Your task to perform on an android device: add a contact in the contacts app Image 0: 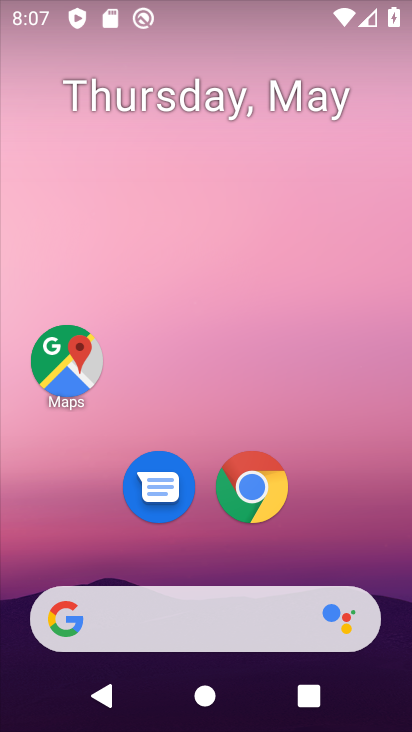
Step 0: drag from (185, 545) to (261, 58)
Your task to perform on an android device: add a contact in the contacts app Image 1: 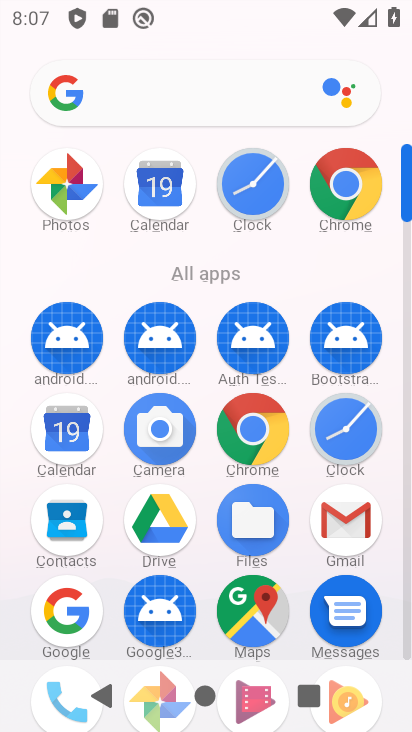
Step 1: drag from (214, 563) to (201, 195)
Your task to perform on an android device: add a contact in the contacts app Image 2: 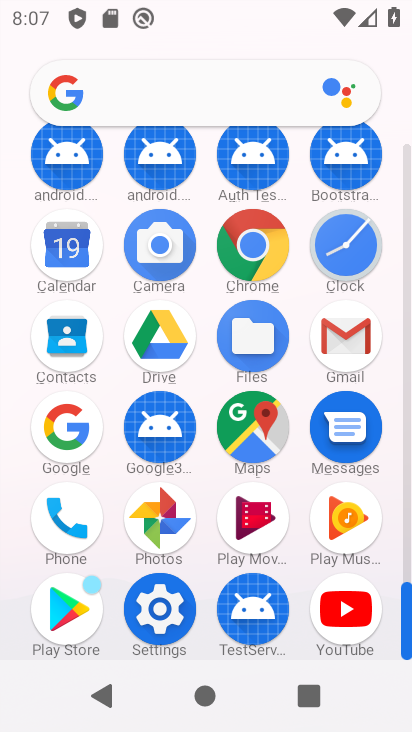
Step 2: click (77, 522)
Your task to perform on an android device: add a contact in the contacts app Image 3: 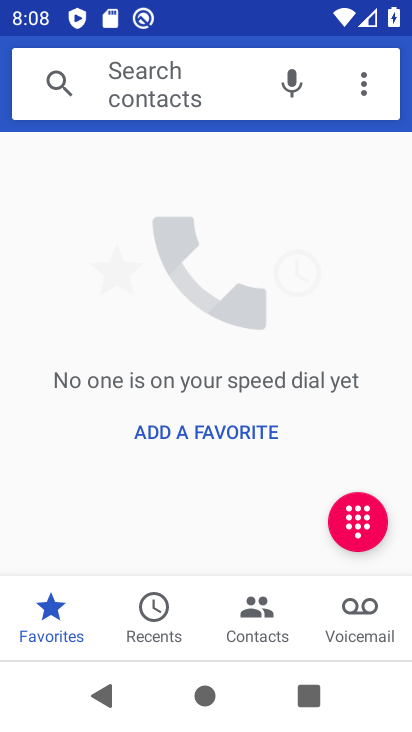
Step 3: click (257, 612)
Your task to perform on an android device: add a contact in the contacts app Image 4: 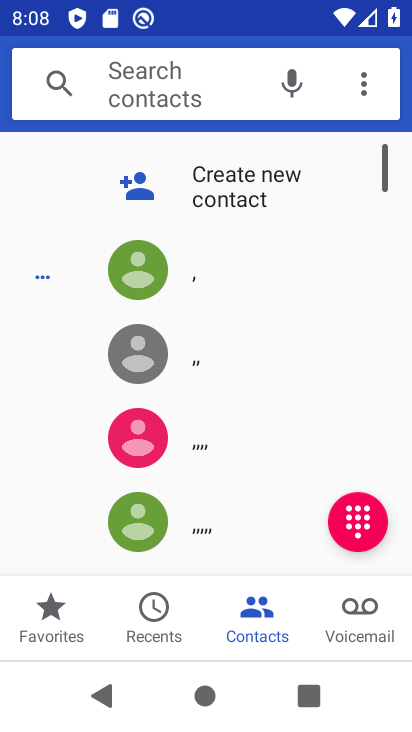
Step 4: click (297, 197)
Your task to perform on an android device: add a contact in the contacts app Image 5: 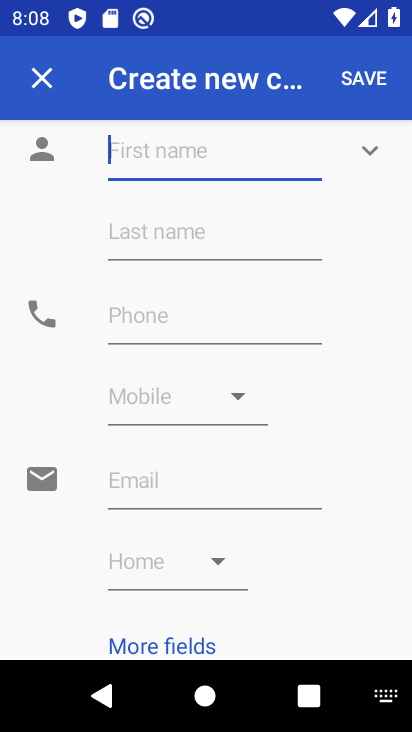
Step 5: type "9898"
Your task to perform on an android device: add a contact in the contacts app Image 6: 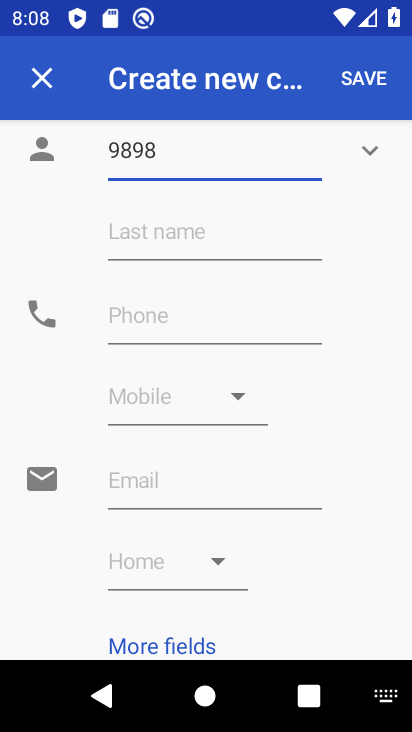
Step 6: click (231, 343)
Your task to perform on an android device: add a contact in the contacts app Image 7: 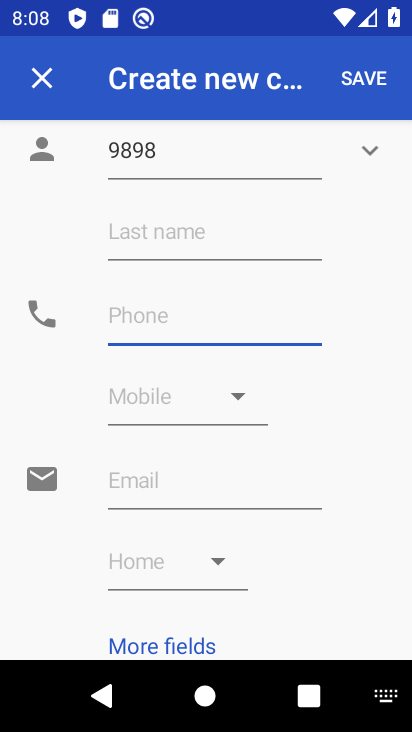
Step 7: type "989"
Your task to perform on an android device: add a contact in the contacts app Image 8: 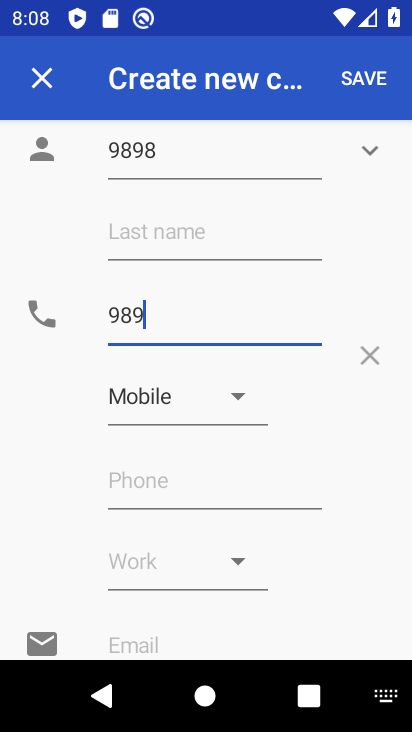
Step 8: click (387, 78)
Your task to perform on an android device: add a contact in the contacts app Image 9: 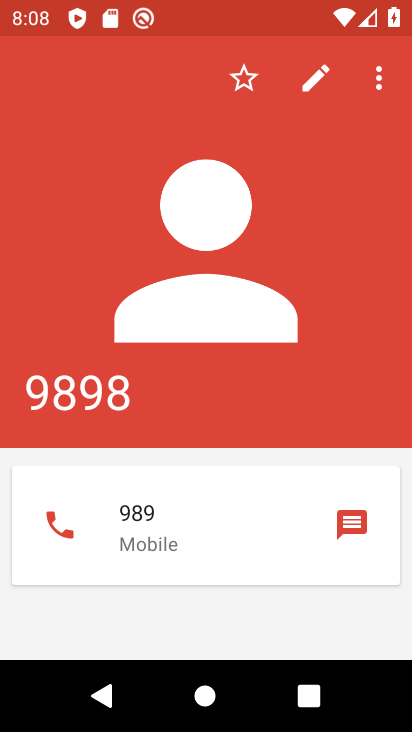
Step 9: task complete